Your task to perform on an android device: Open Amazon Image 0: 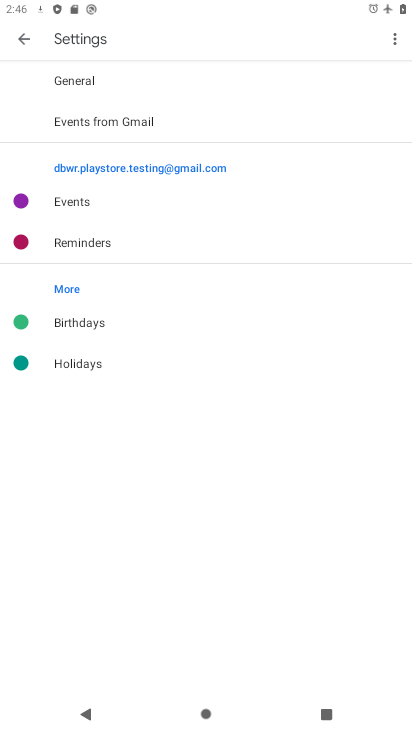
Step 0: press home button
Your task to perform on an android device: Open Amazon Image 1: 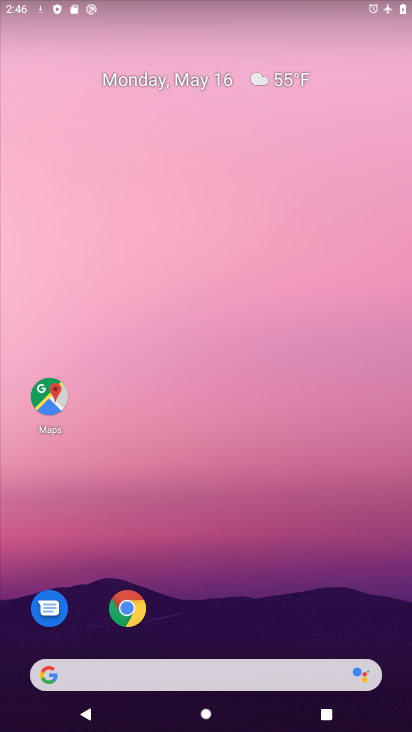
Step 1: click (126, 598)
Your task to perform on an android device: Open Amazon Image 2: 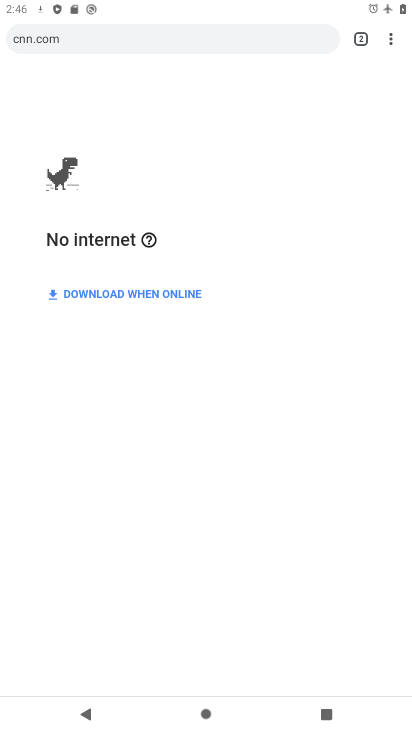
Step 2: click (389, 40)
Your task to perform on an android device: Open Amazon Image 3: 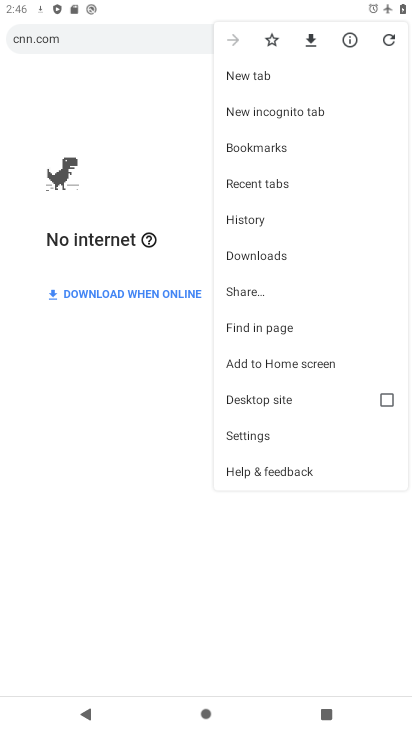
Step 3: click (137, 229)
Your task to perform on an android device: Open Amazon Image 4: 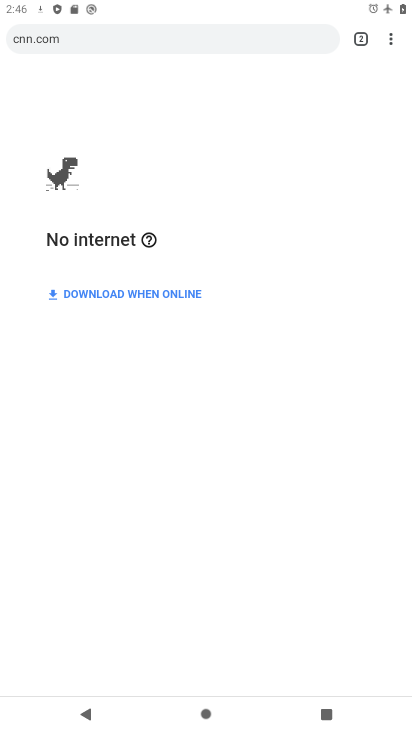
Step 4: click (368, 37)
Your task to perform on an android device: Open Amazon Image 5: 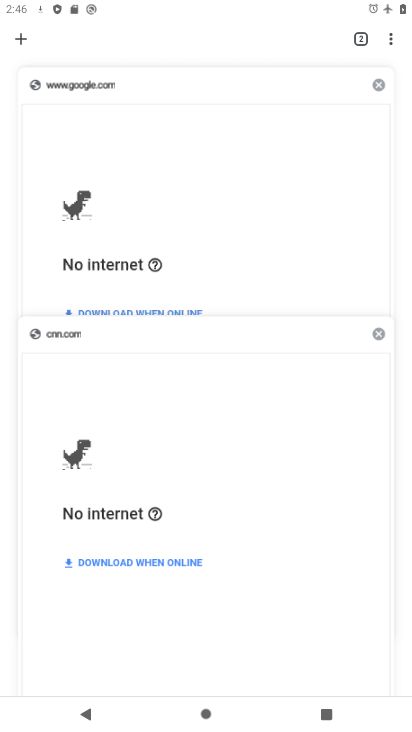
Step 5: click (27, 35)
Your task to perform on an android device: Open Amazon Image 6: 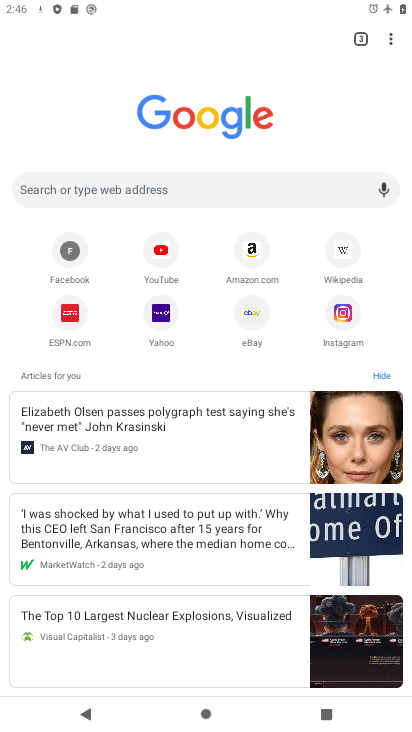
Step 6: click (247, 264)
Your task to perform on an android device: Open Amazon Image 7: 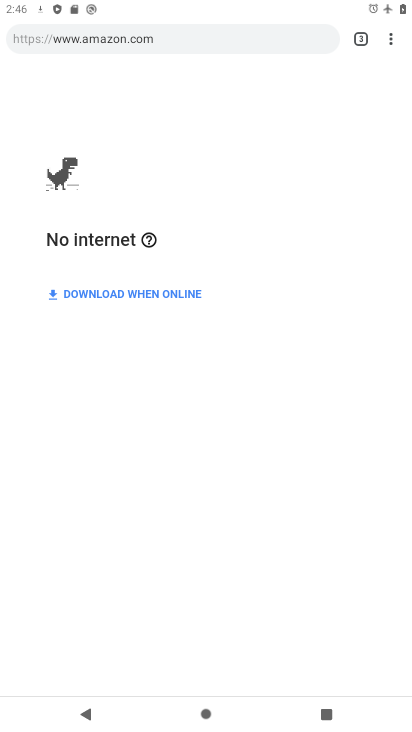
Step 7: task complete